Your task to perform on an android device: Open network settings Image 0: 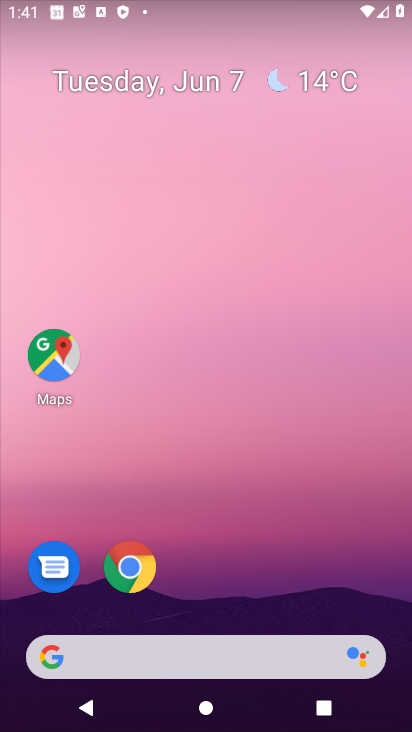
Step 0: drag from (341, 534) to (355, 126)
Your task to perform on an android device: Open network settings Image 1: 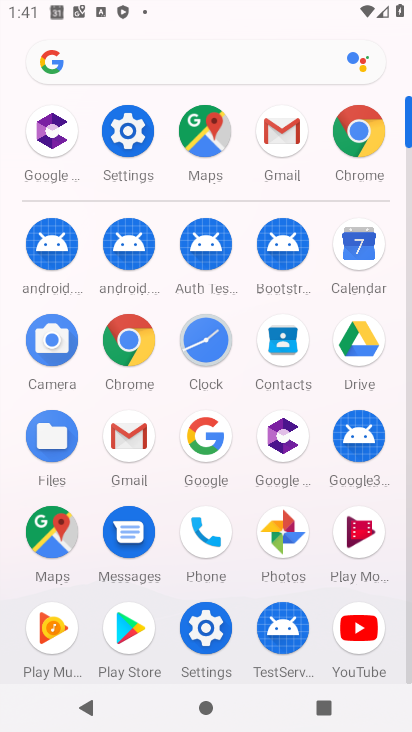
Step 1: click (132, 136)
Your task to perform on an android device: Open network settings Image 2: 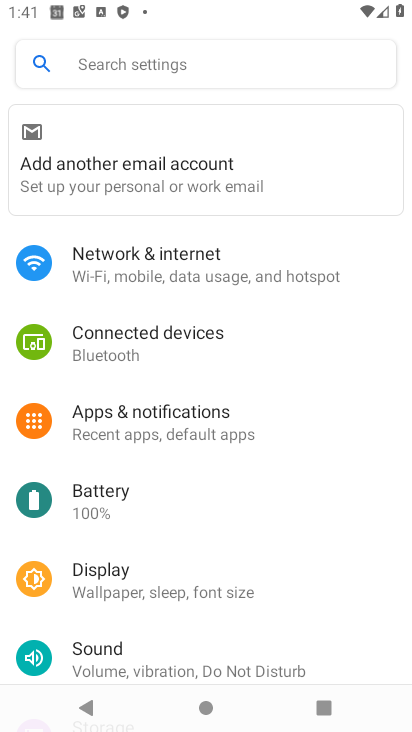
Step 2: click (246, 283)
Your task to perform on an android device: Open network settings Image 3: 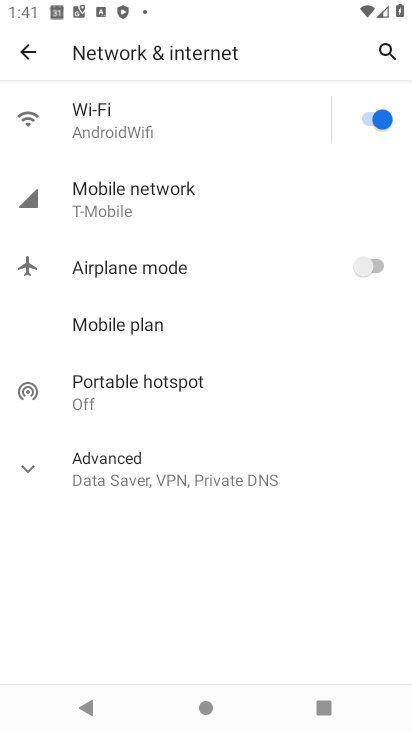
Step 3: task complete